Your task to perform on an android device: Do I have any events this weekend? Image 0: 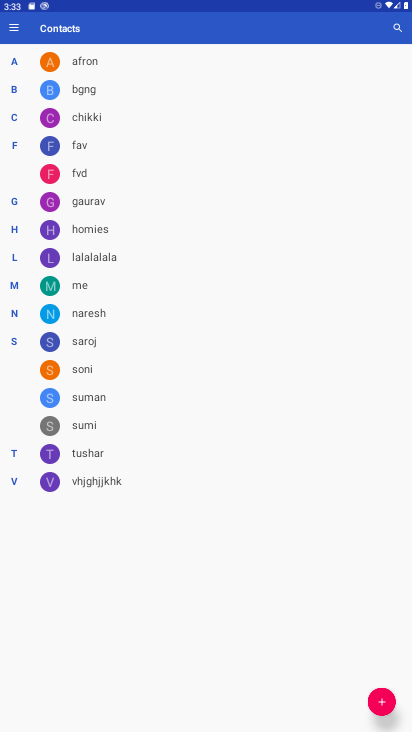
Step 0: press home button
Your task to perform on an android device: Do I have any events this weekend? Image 1: 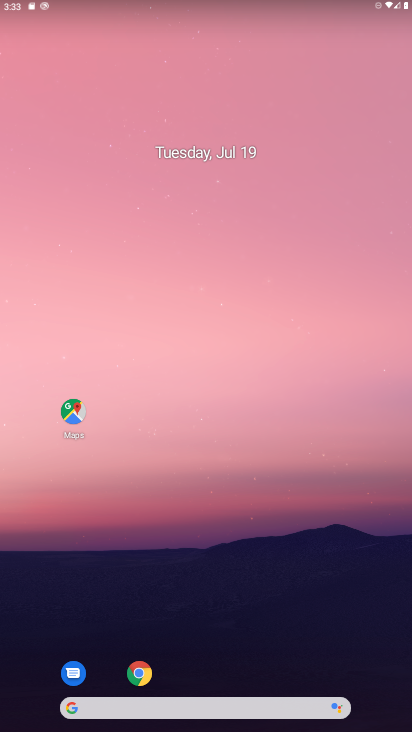
Step 1: drag from (233, 631) to (210, 11)
Your task to perform on an android device: Do I have any events this weekend? Image 2: 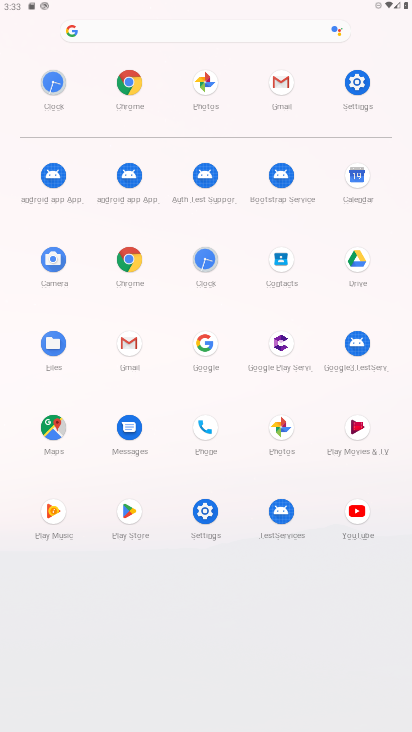
Step 2: click (353, 176)
Your task to perform on an android device: Do I have any events this weekend? Image 3: 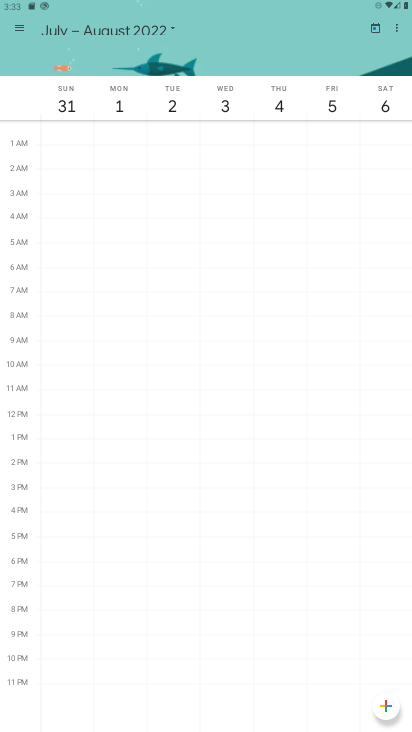
Step 3: click (16, 22)
Your task to perform on an android device: Do I have any events this weekend? Image 4: 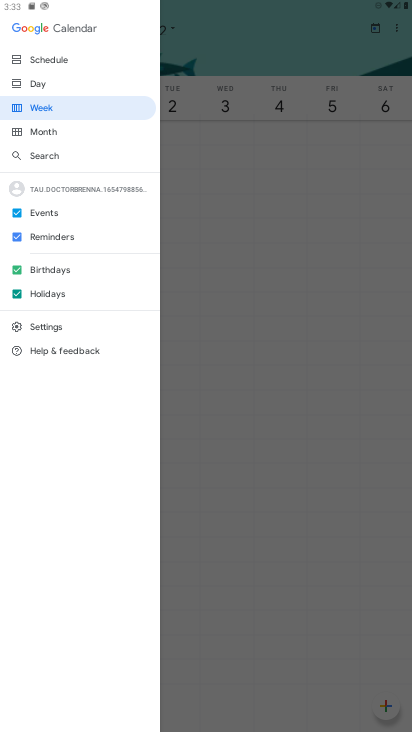
Step 4: click (35, 236)
Your task to perform on an android device: Do I have any events this weekend? Image 5: 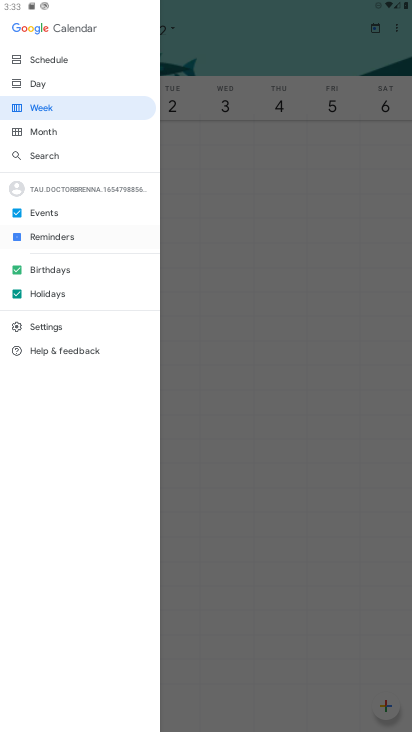
Step 5: click (44, 270)
Your task to perform on an android device: Do I have any events this weekend? Image 6: 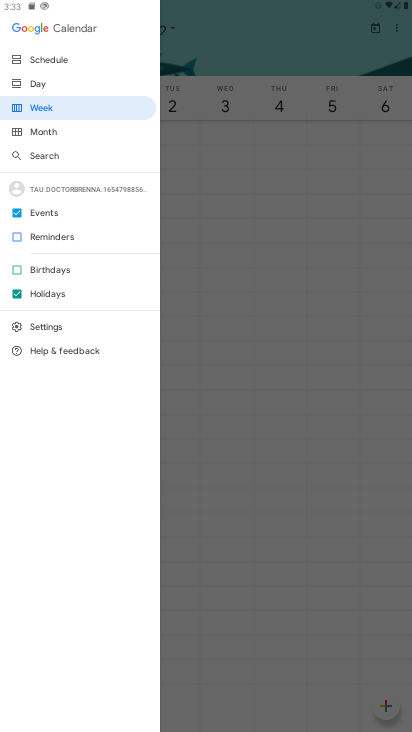
Step 6: click (55, 301)
Your task to perform on an android device: Do I have any events this weekend? Image 7: 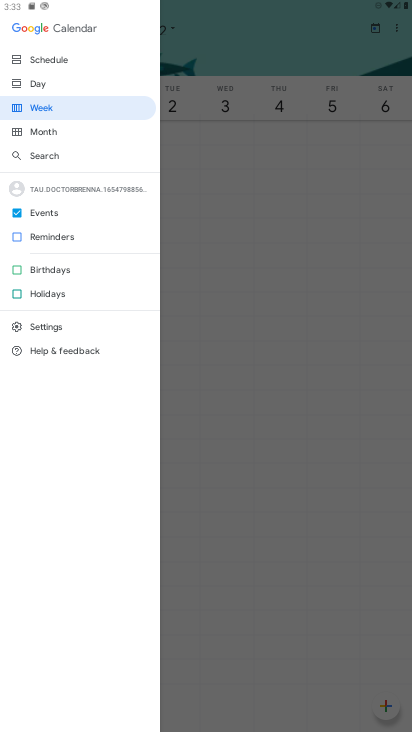
Step 7: click (59, 109)
Your task to perform on an android device: Do I have any events this weekend? Image 8: 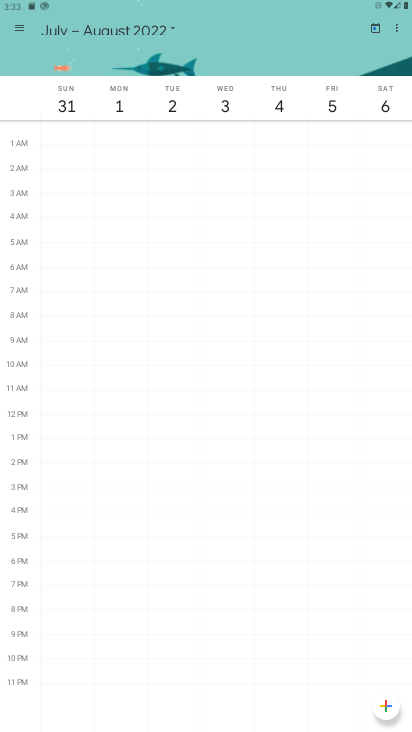
Step 8: task complete